Your task to perform on an android device: open app "Speedtest by Ookla" (install if not already installed) Image 0: 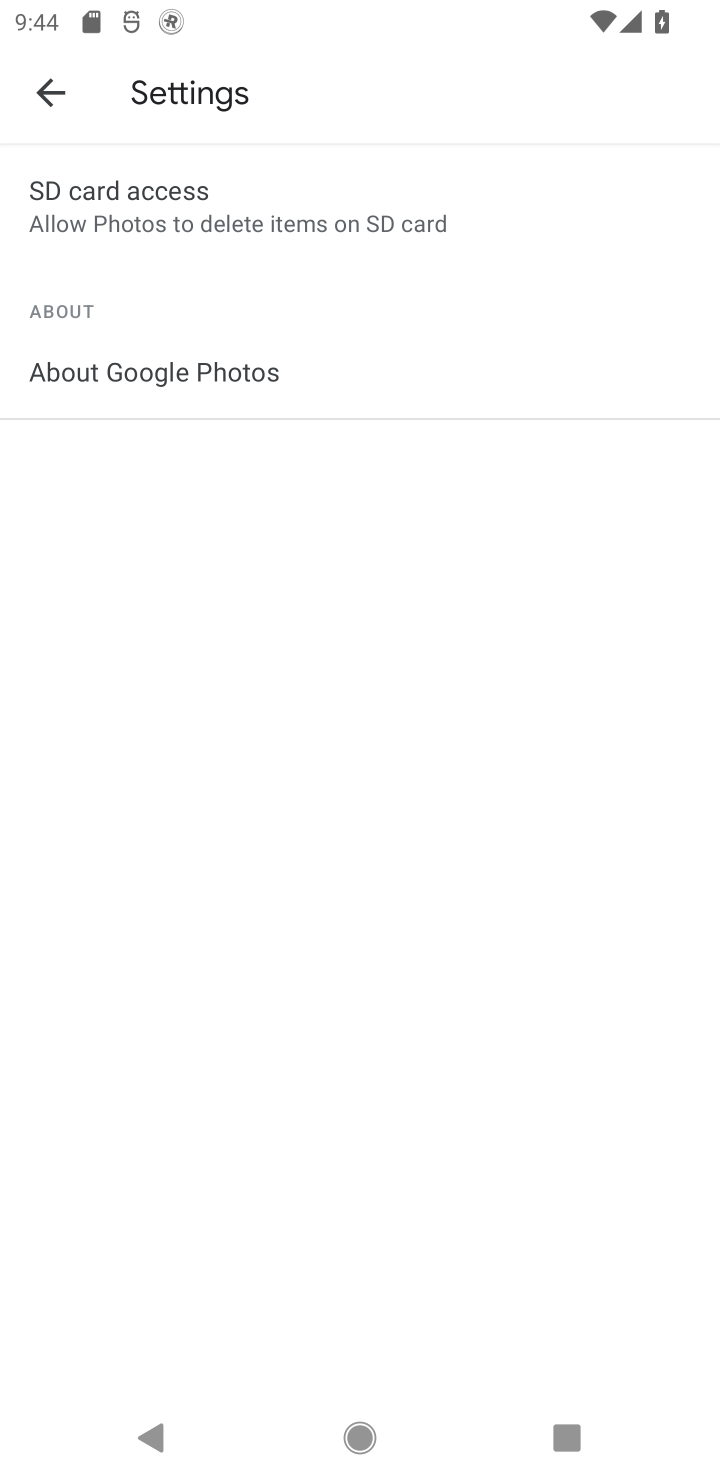
Step 0: press home button
Your task to perform on an android device: open app "Speedtest by Ookla" (install if not already installed) Image 1: 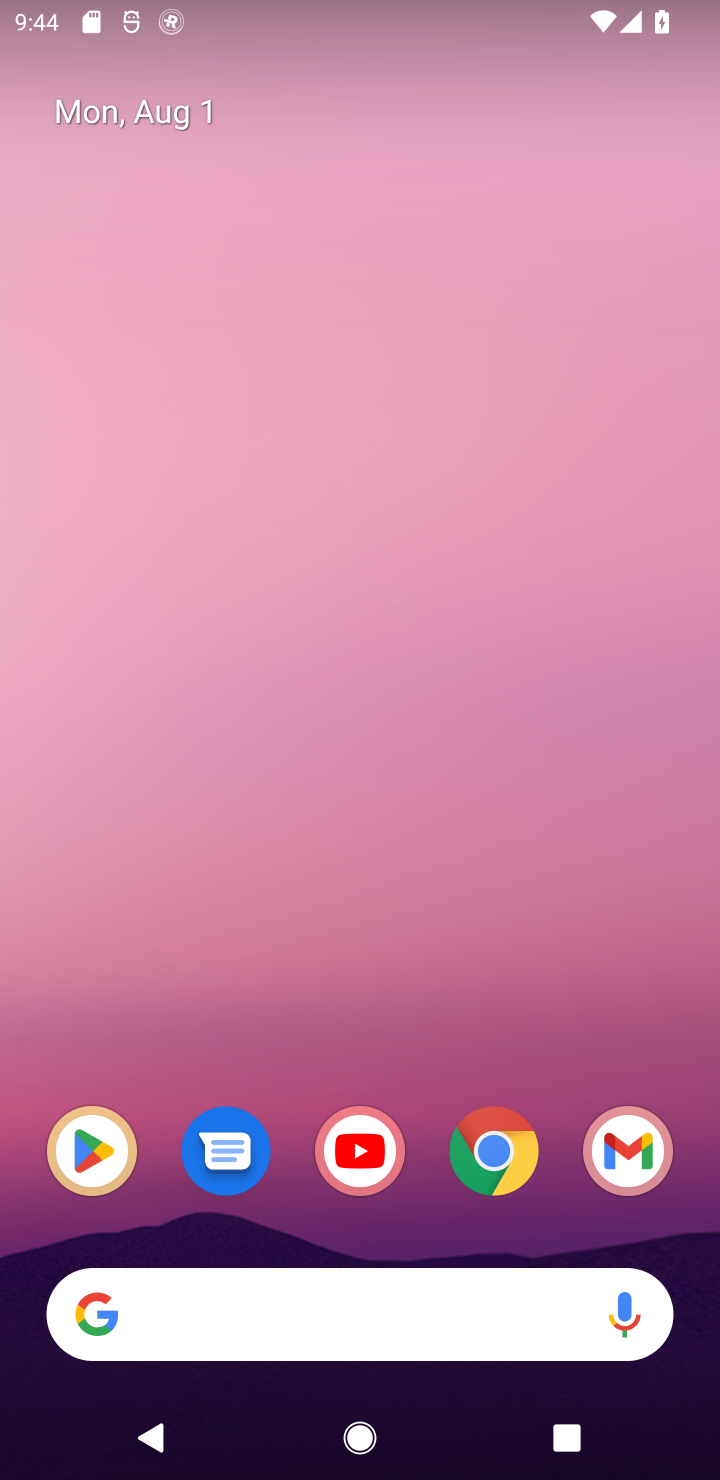
Step 1: click (107, 1156)
Your task to perform on an android device: open app "Speedtest by Ookla" (install if not already installed) Image 2: 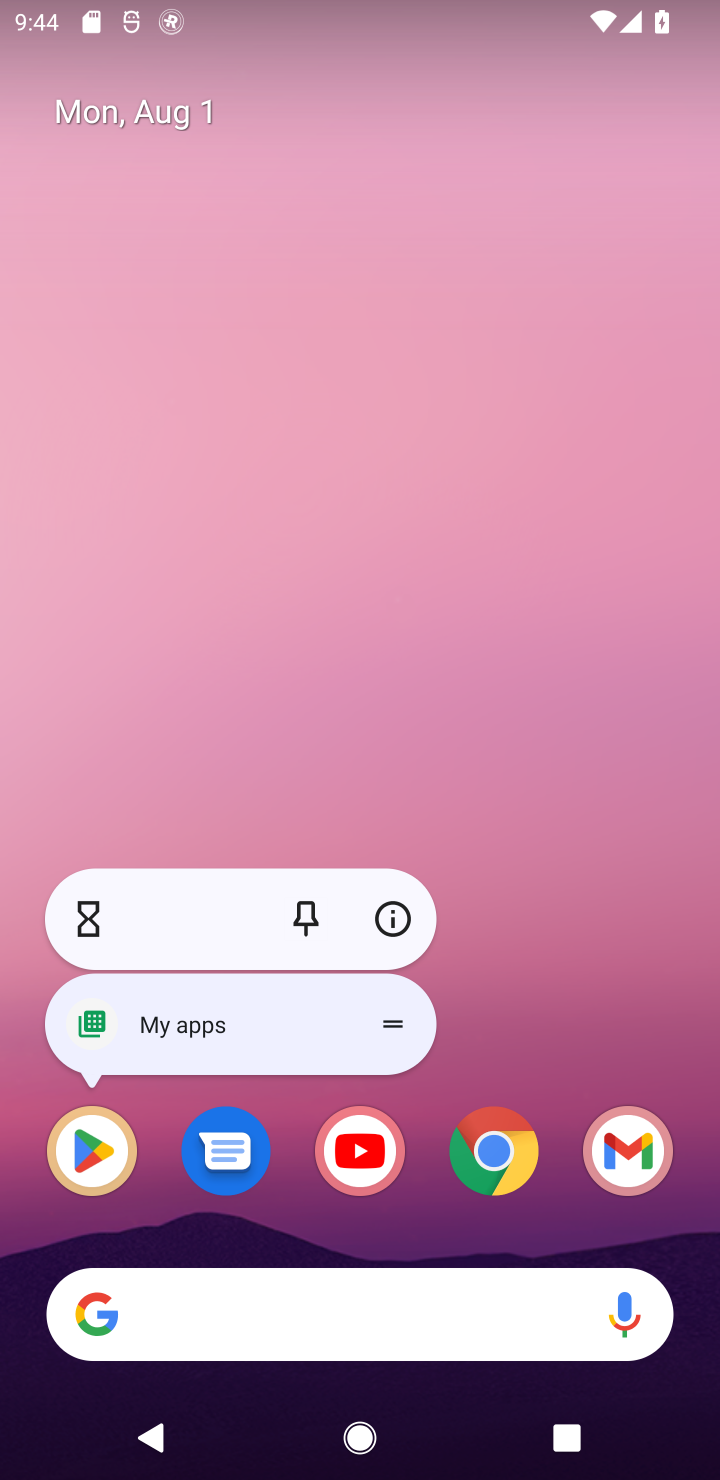
Step 2: click (107, 1156)
Your task to perform on an android device: open app "Speedtest by Ookla" (install if not already installed) Image 3: 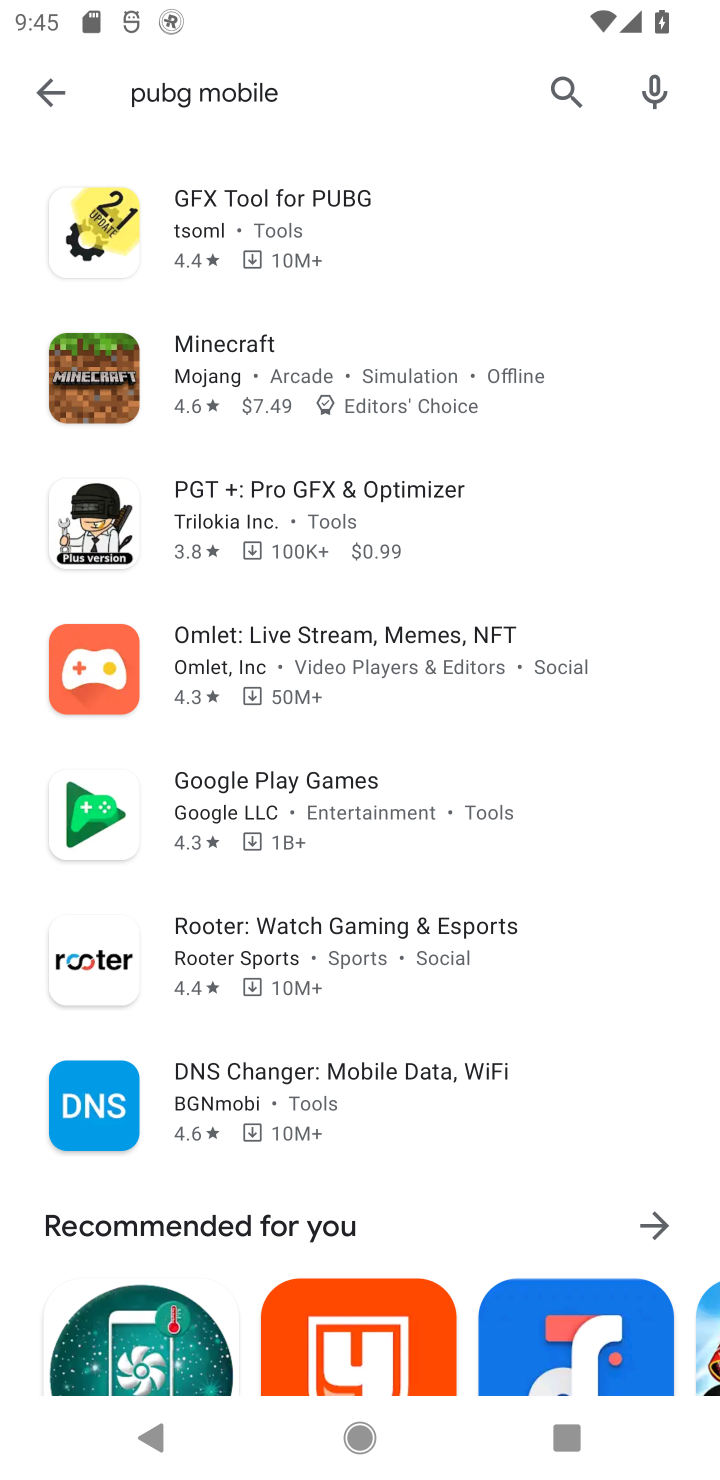
Step 3: click (590, 87)
Your task to perform on an android device: open app "Speedtest by Ookla" (install if not already installed) Image 4: 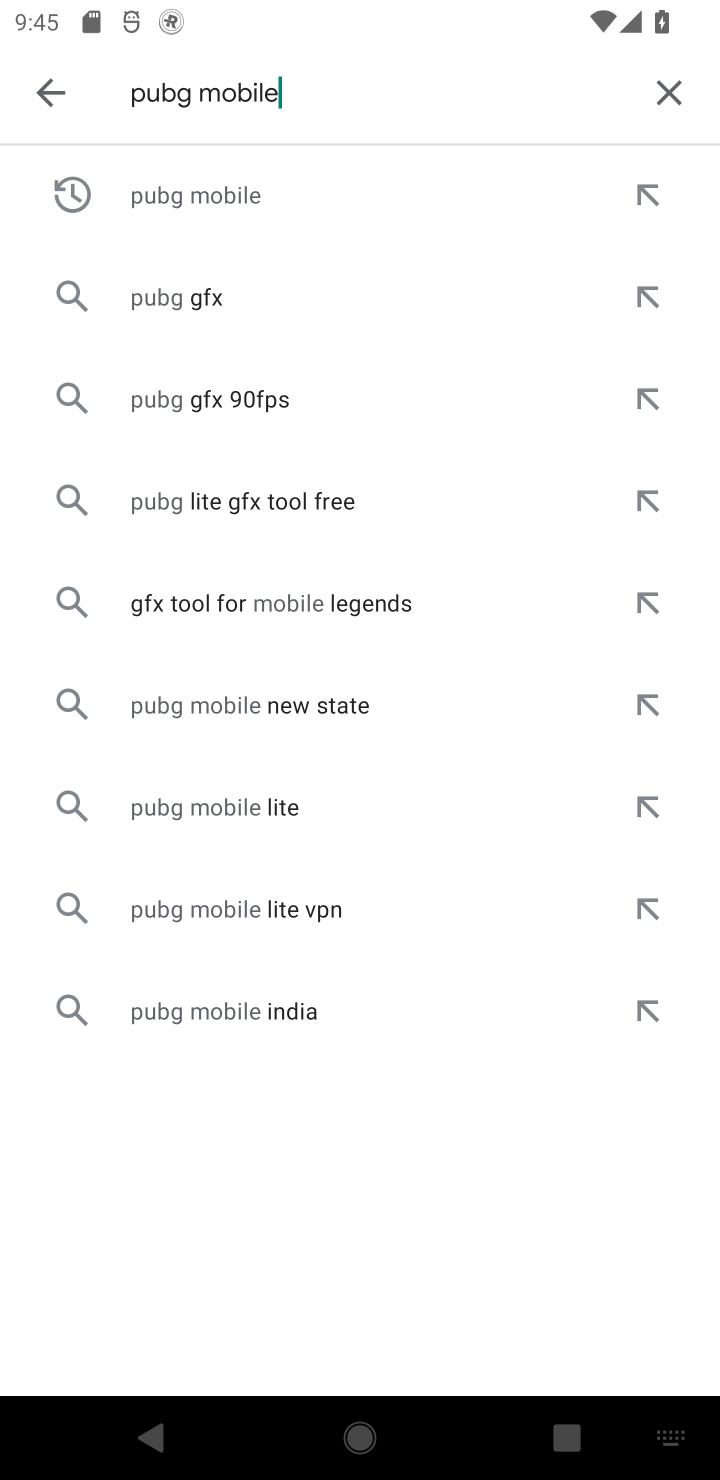
Step 4: click (678, 105)
Your task to perform on an android device: open app "Speedtest by Ookla" (install if not already installed) Image 5: 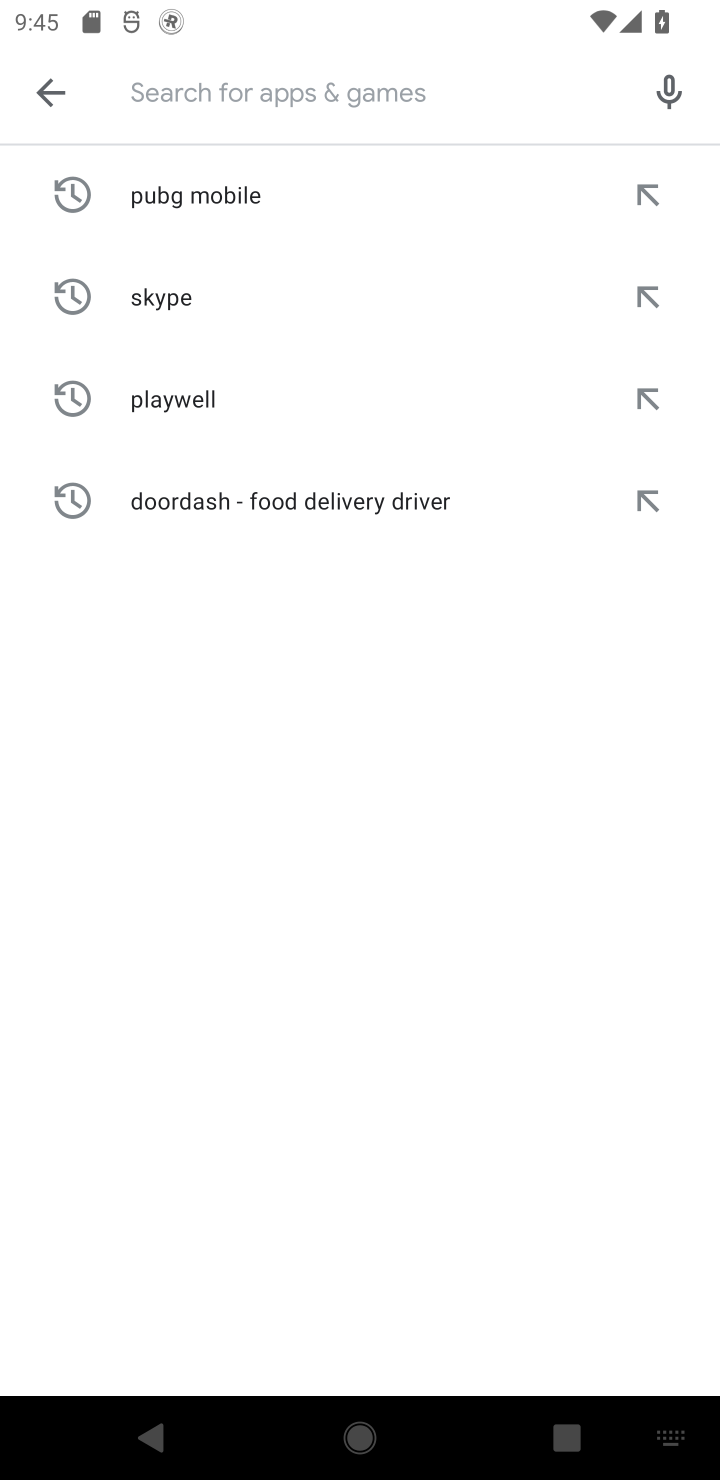
Step 5: type "Speedtest by Ookla"
Your task to perform on an android device: open app "Speedtest by Ookla" (install if not already installed) Image 6: 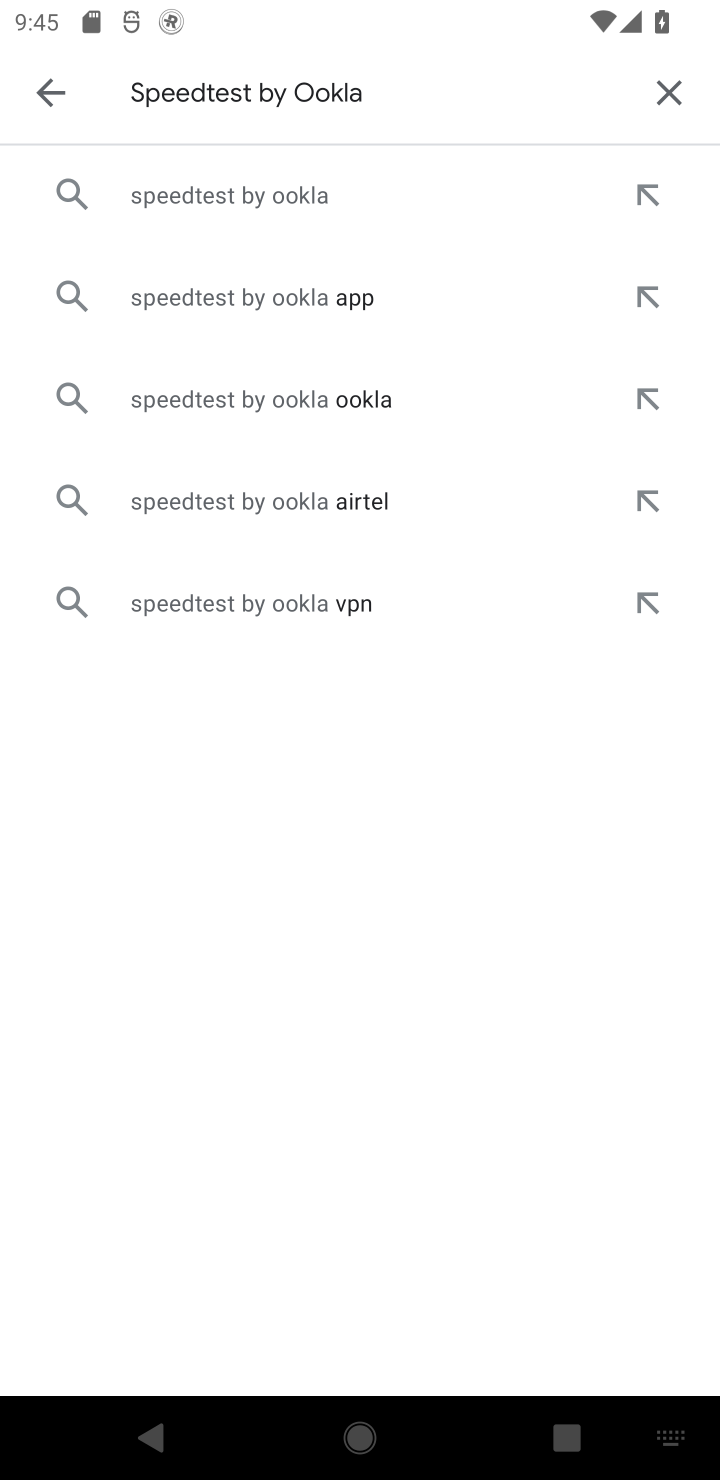
Step 6: click (291, 195)
Your task to perform on an android device: open app "Speedtest by Ookla" (install if not already installed) Image 7: 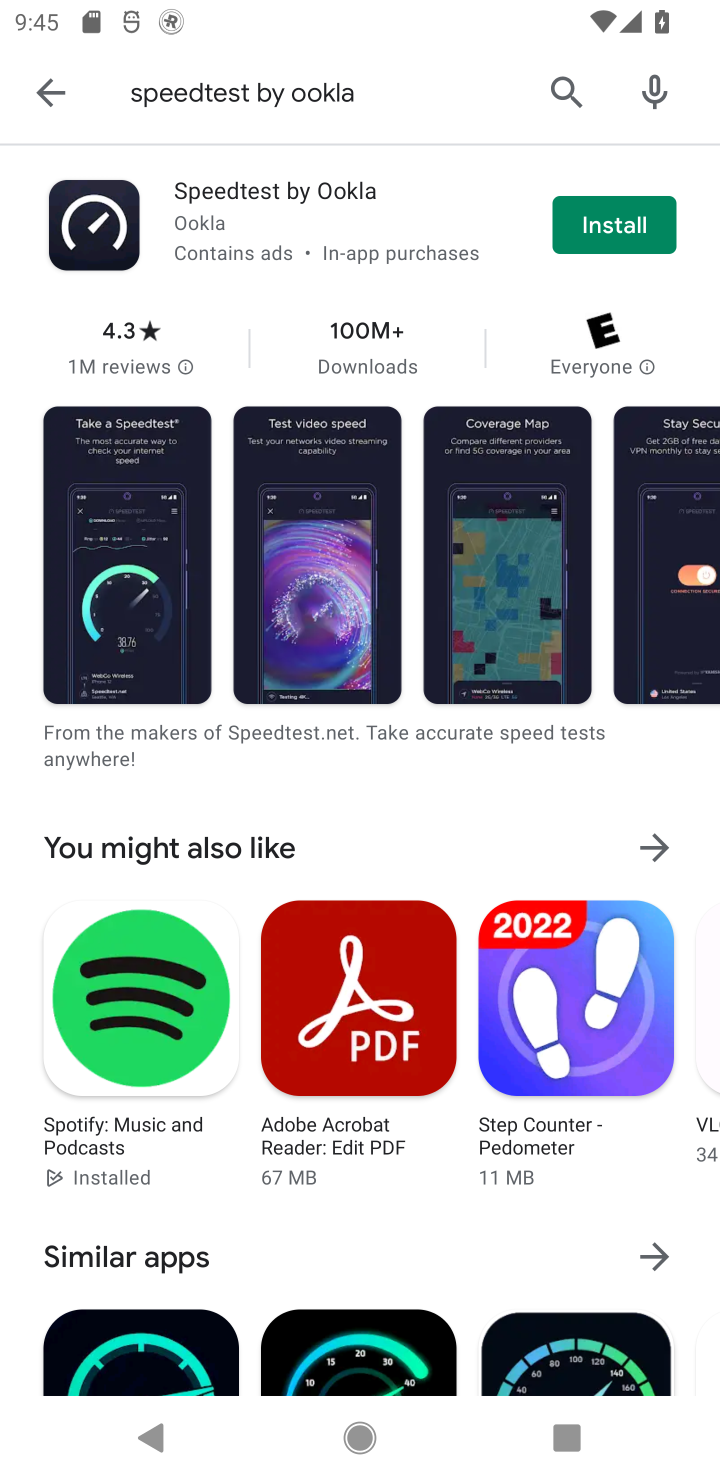
Step 7: click (648, 228)
Your task to perform on an android device: open app "Speedtest by Ookla" (install if not already installed) Image 8: 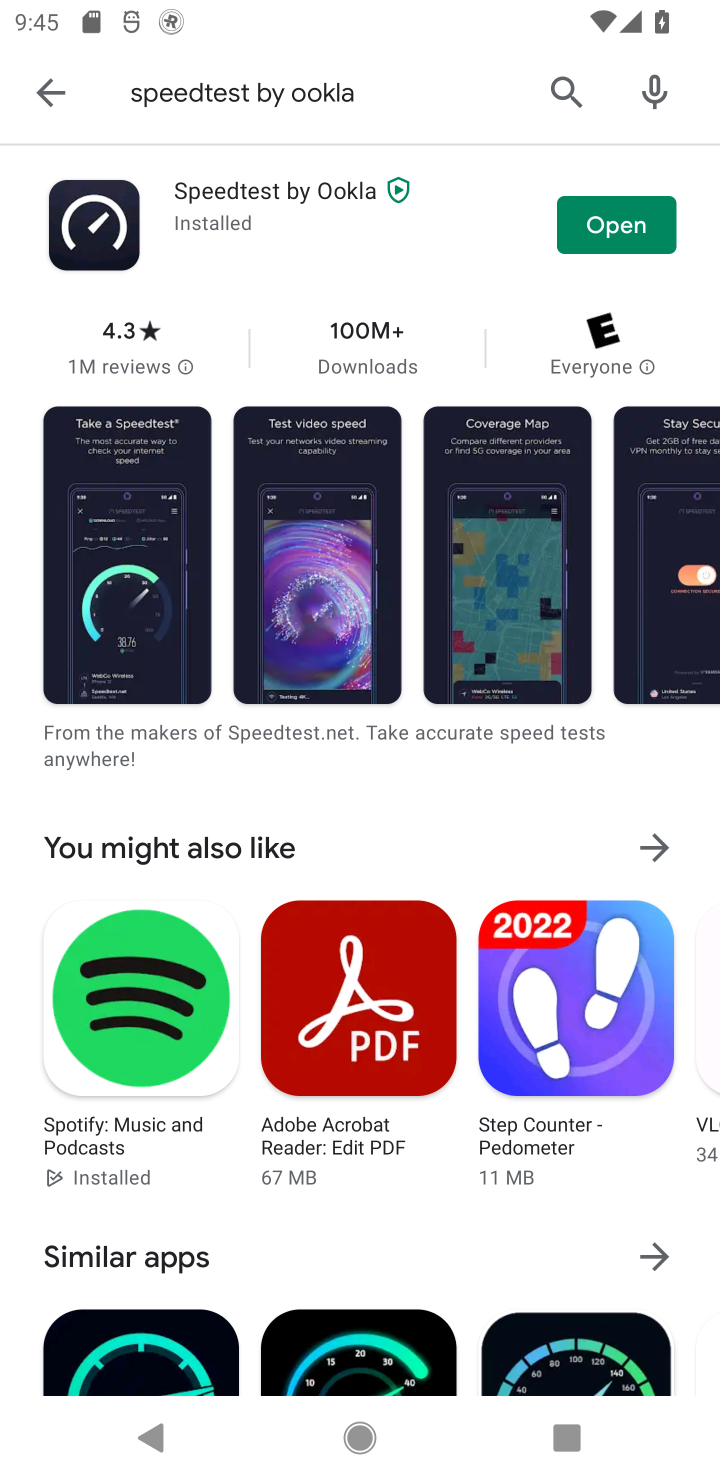
Step 8: click (648, 228)
Your task to perform on an android device: open app "Speedtest by Ookla" (install if not already installed) Image 9: 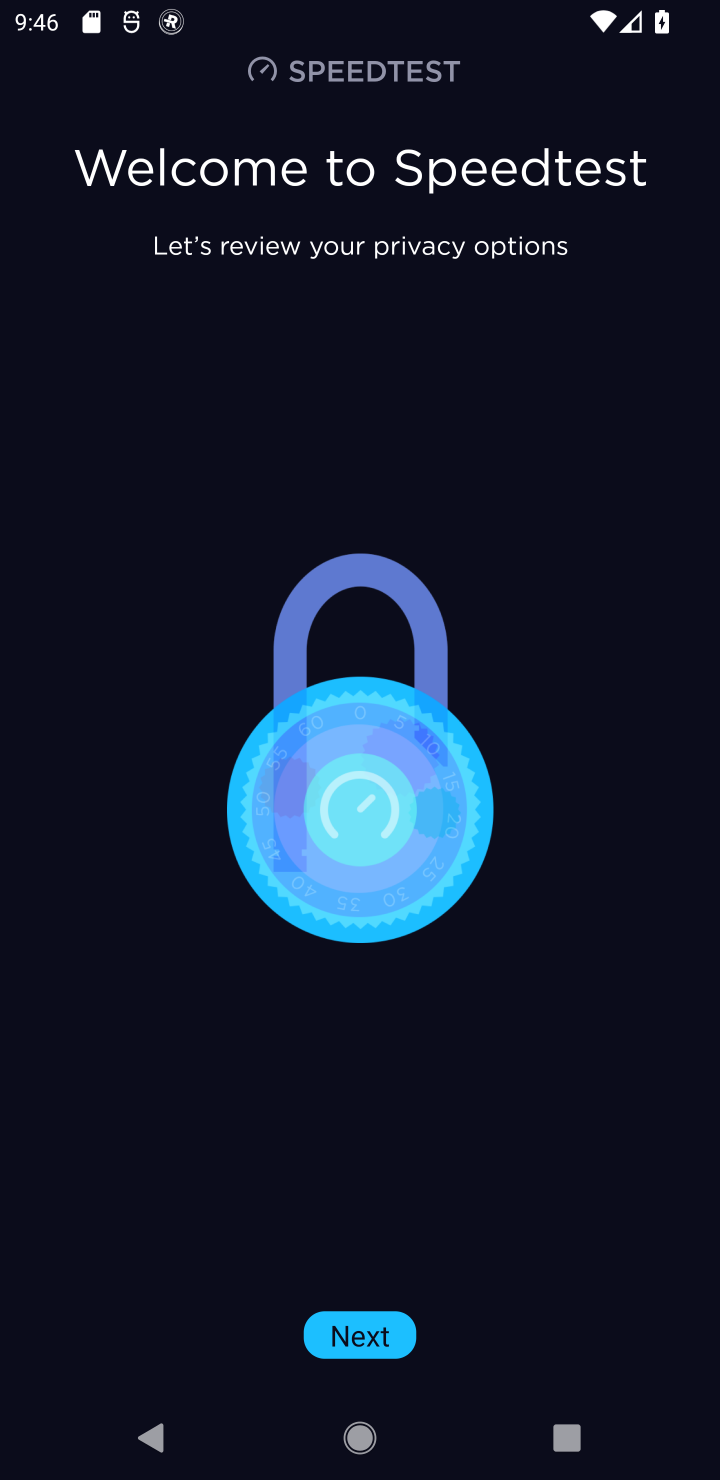
Step 9: press home button
Your task to perform on an android device: open app "Speedtest by Ookla" (install if not already installed) Image 10: 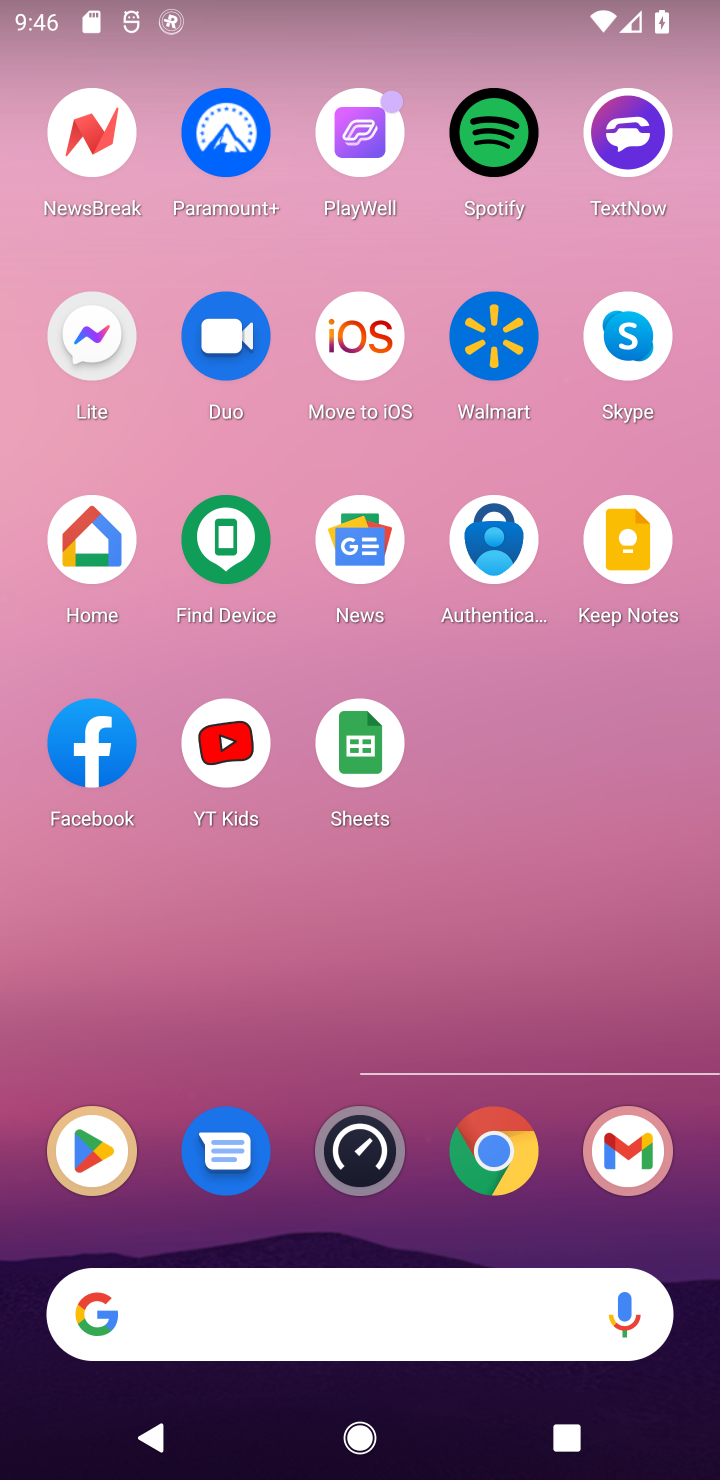
Step 10: click (120, 1166)
Your task to perform on an android device: open app "Speedtest by Ookla" (install if not already installed) Image 11: 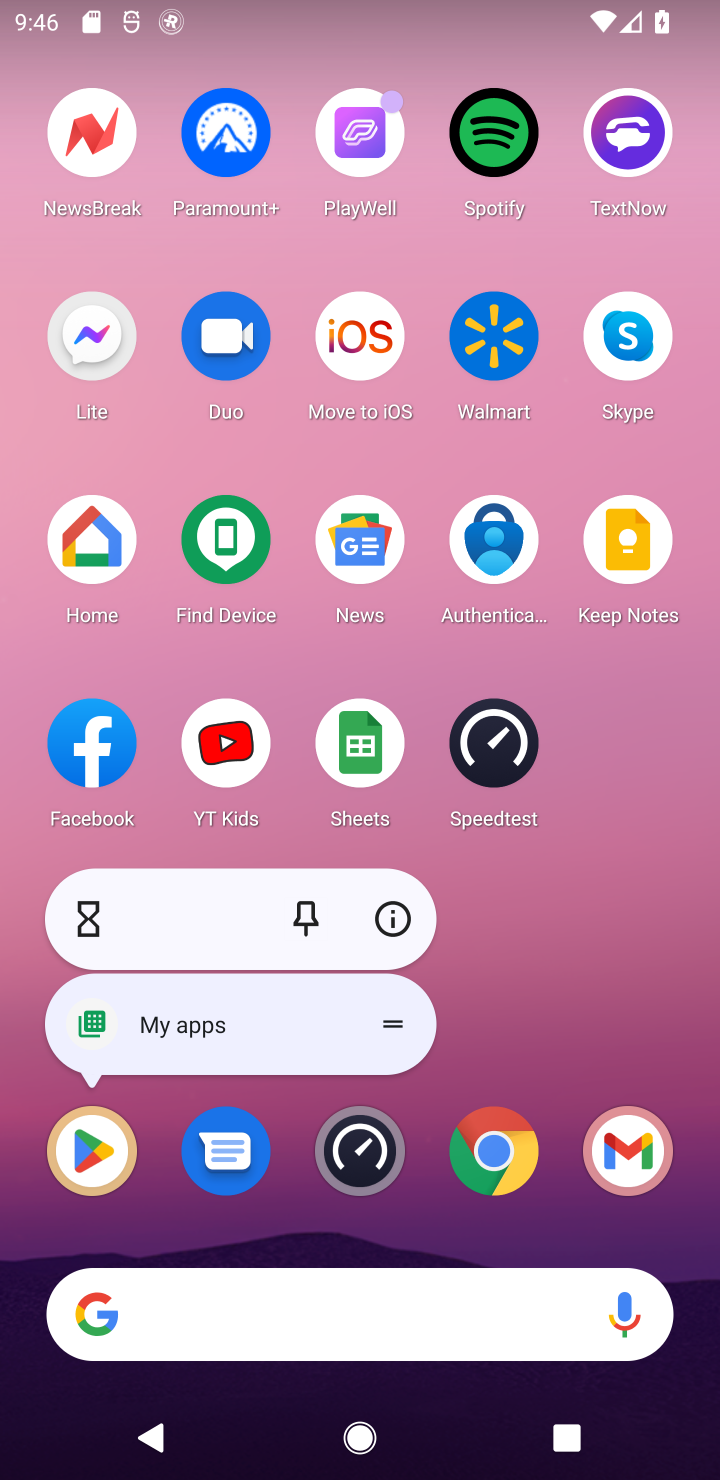
Step 11: click (82, 1188)
Your task to perform on an android device: open app "Speedtest by Ookla" (install if not already installed) Image 12: 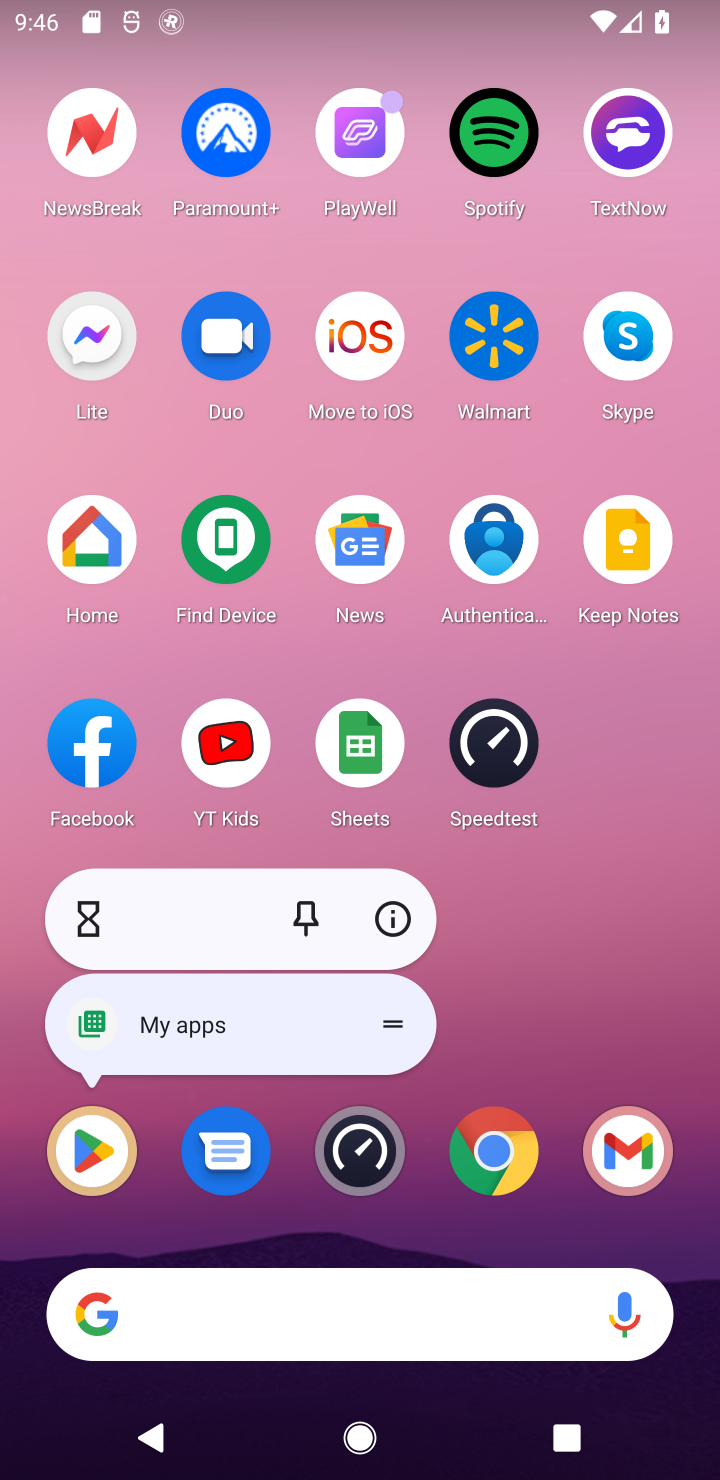
Step 12: click (104, 1165)
Your task to perform on an android device: open app "Speedtest by Ookla" (install if not already installed) Image 13: 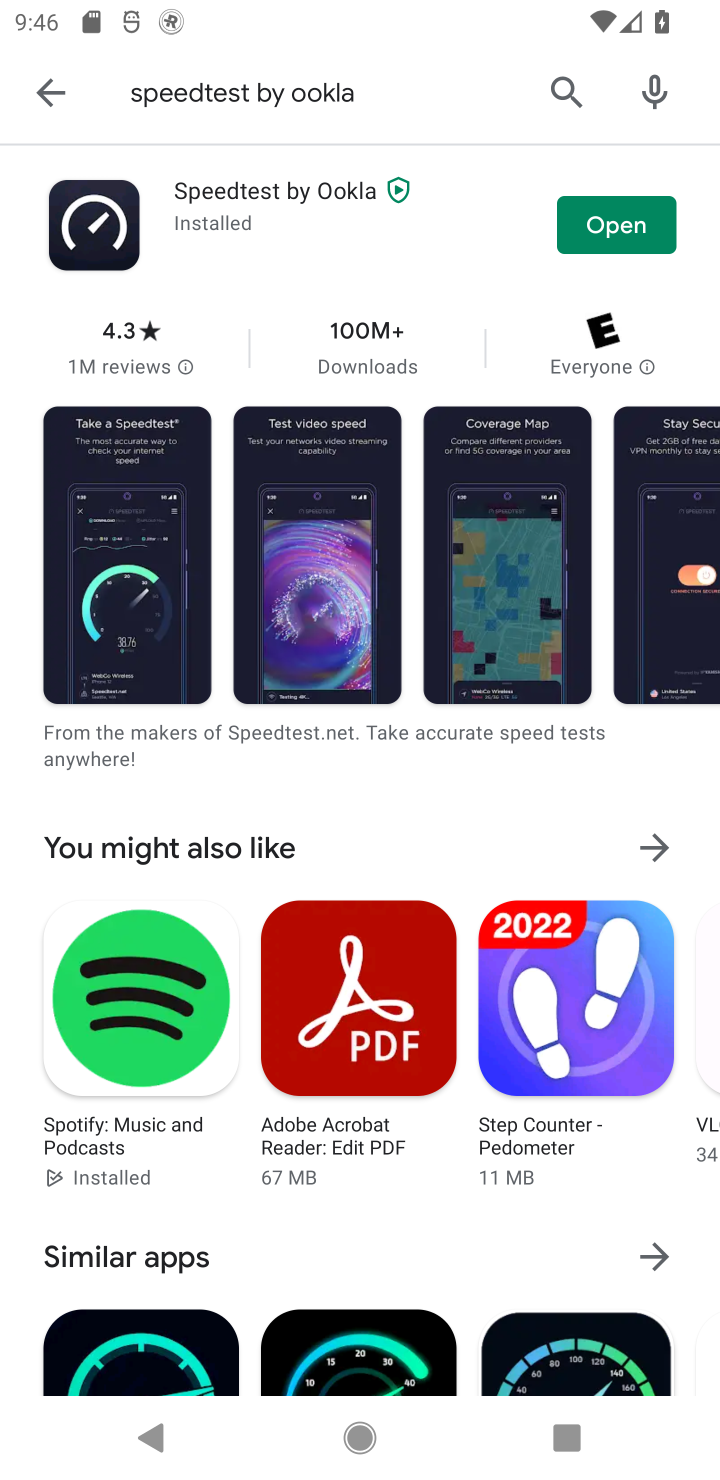
Step 13: click (546, 91)
Your task to perform on an android device: open app "Speedtest by Ookla" (install if not already installed) Image 14: 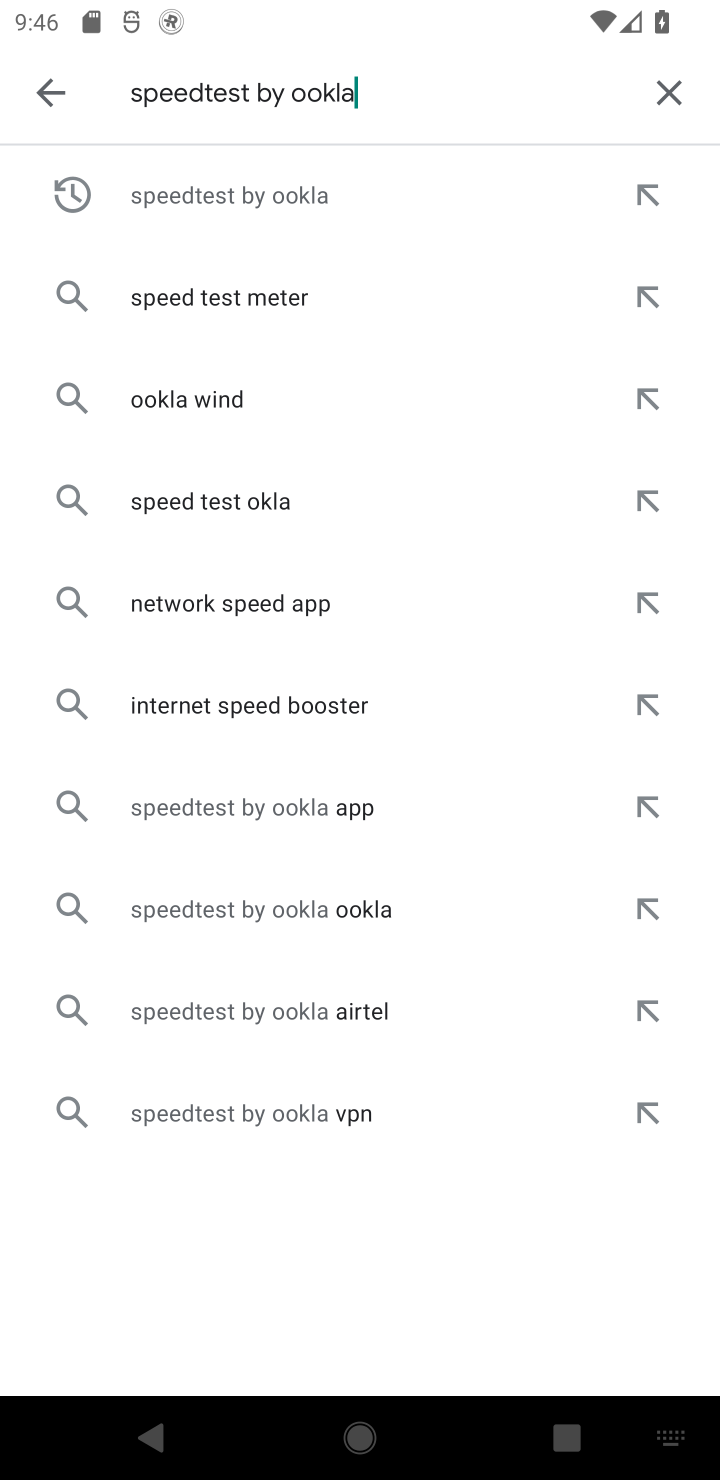
Step 14: click (324, 204)
Your task to perform on an android device: open app "Speedtest by Ookla" (install if not already installed) Image 15: 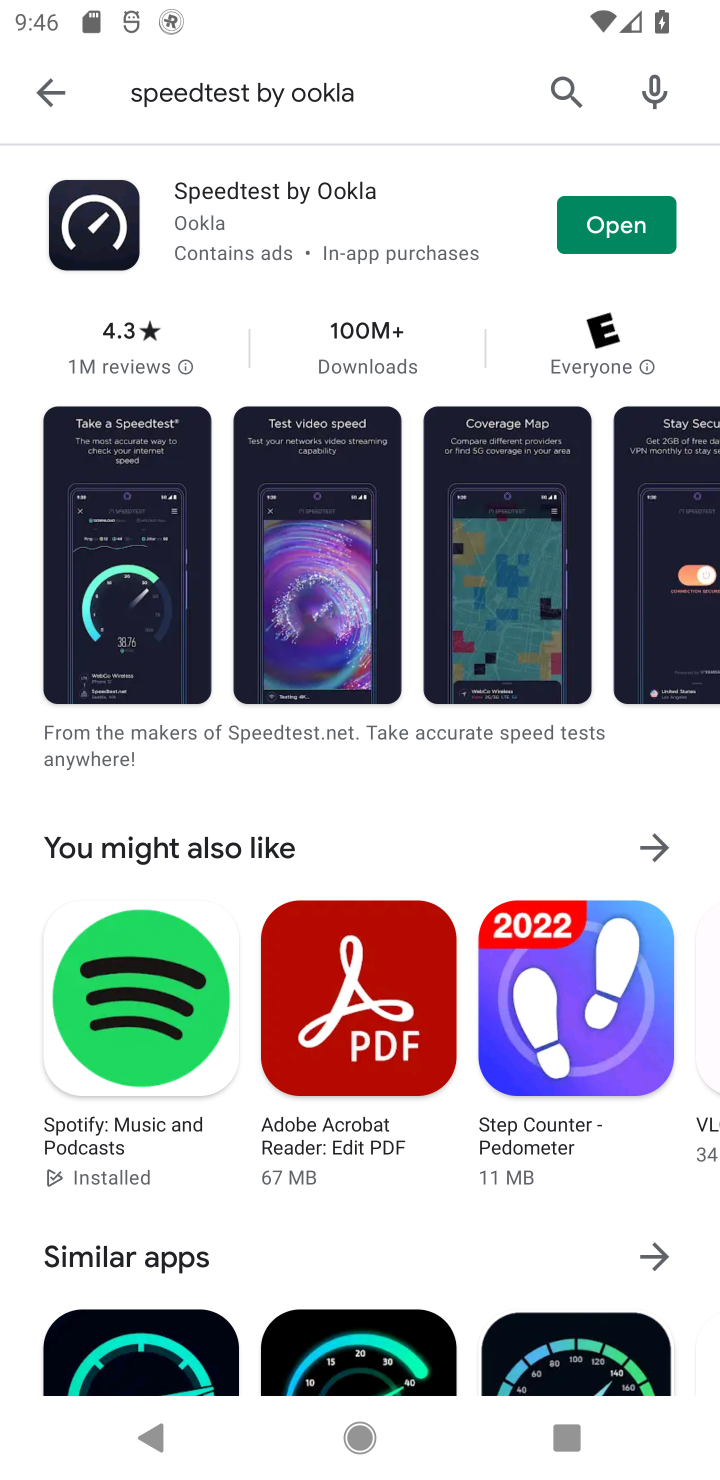
Step 15: click (567, 220)
Your task to perform on an android device: open app "Speedtest by Ookla" (install if not already installed) Image 16: 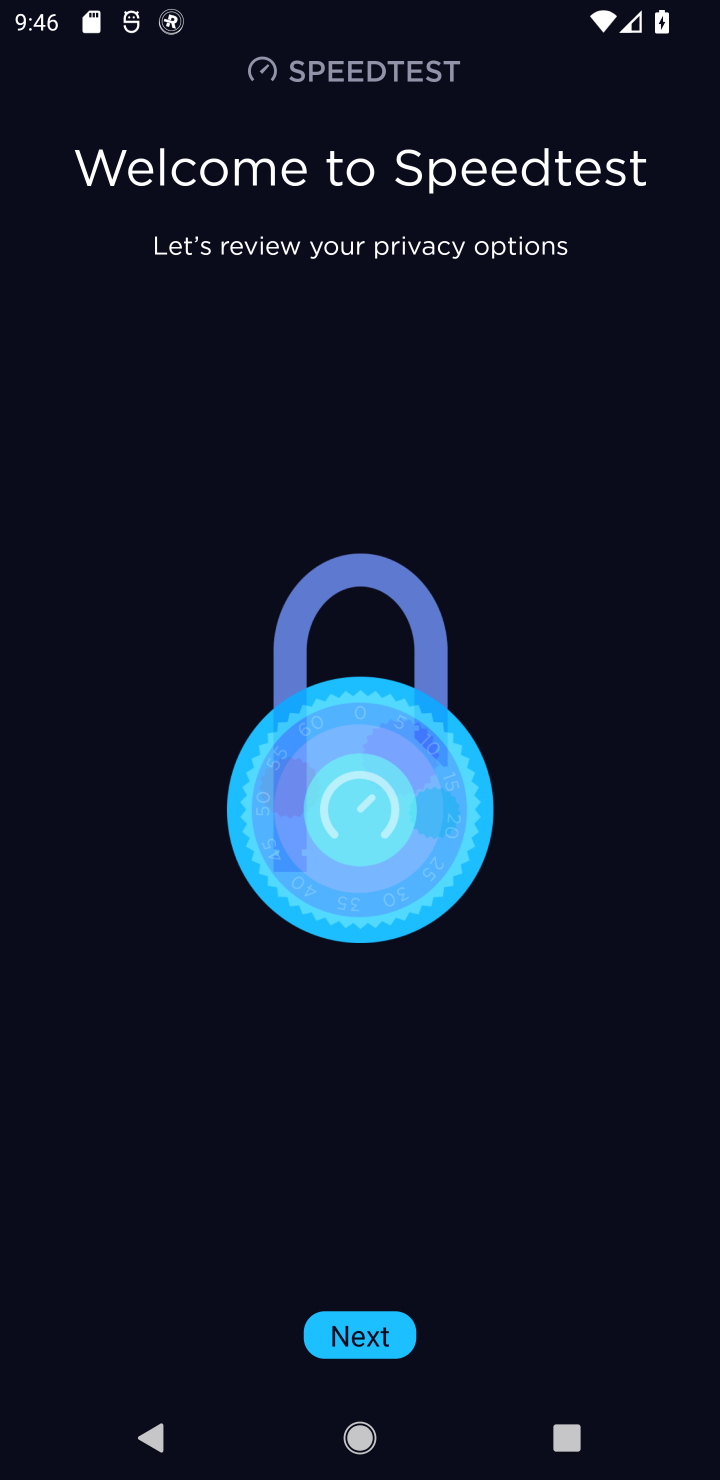
Step 16: task complete